Your task to perform on an android device: visit the assistant section in the google photos Image 0: 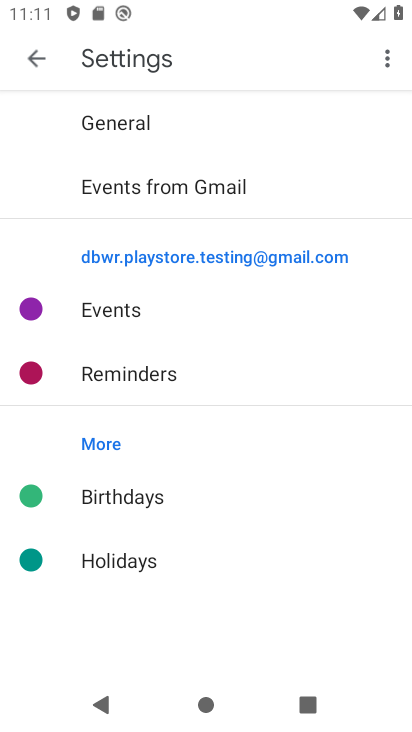
Step 0: press home button
Your task to perform on an android device: visit the assistant section in the google photos Image 1: 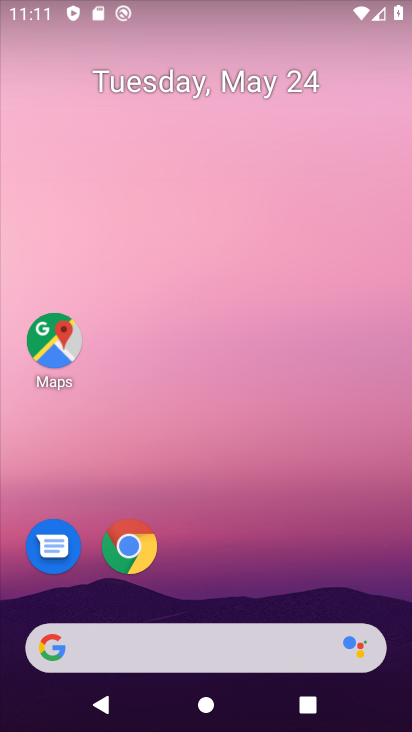
Step 1: drag from (250, 592) to (166, 16)
Your task to perform on an android device: visit the assistant section in the google photos Image 2: 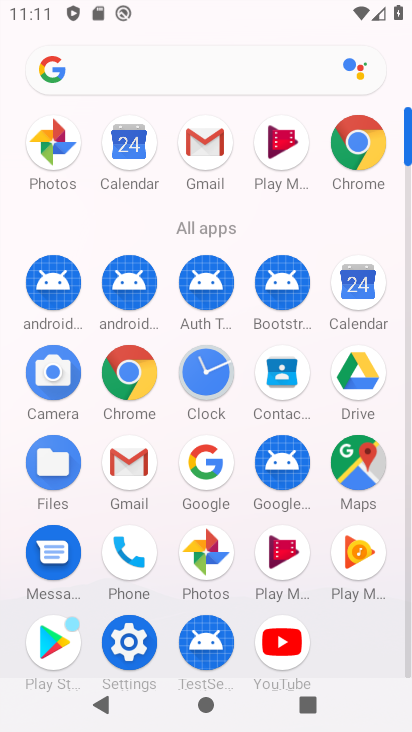
Step 2: click (211, 542)
Your task to perform on an android device: visit the assistant section in the google photos Image 3: 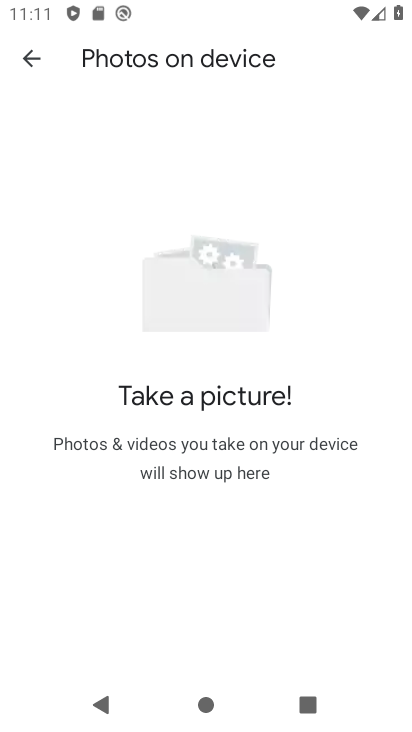
Step 3: click (42, 50)
Your task to perform on an android device: visit the assistant section in the google photos Image 4: 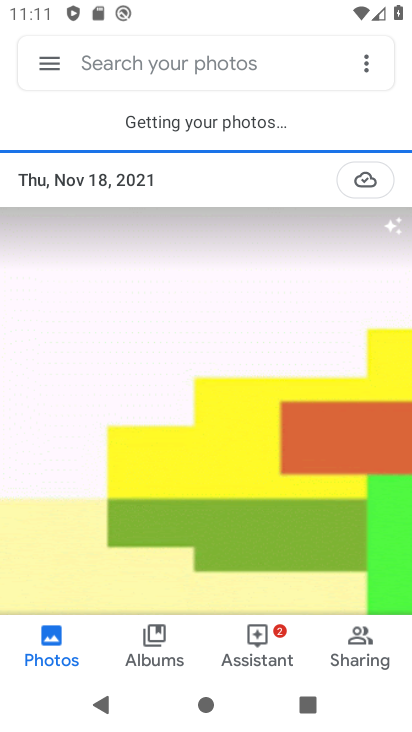
Step 4: click (265, 656)
Your task to perform on an android device: visit the assistant section in the google photos Image 5: 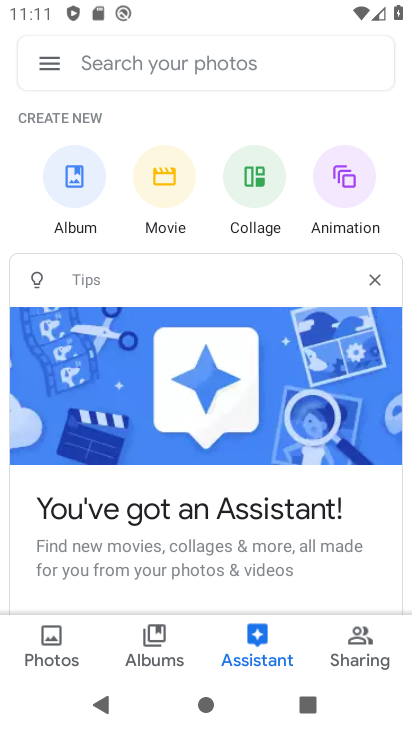
Step 5: task complete